Your task to perform on an android device: Open calendar and show me the second week of next month Image 0: 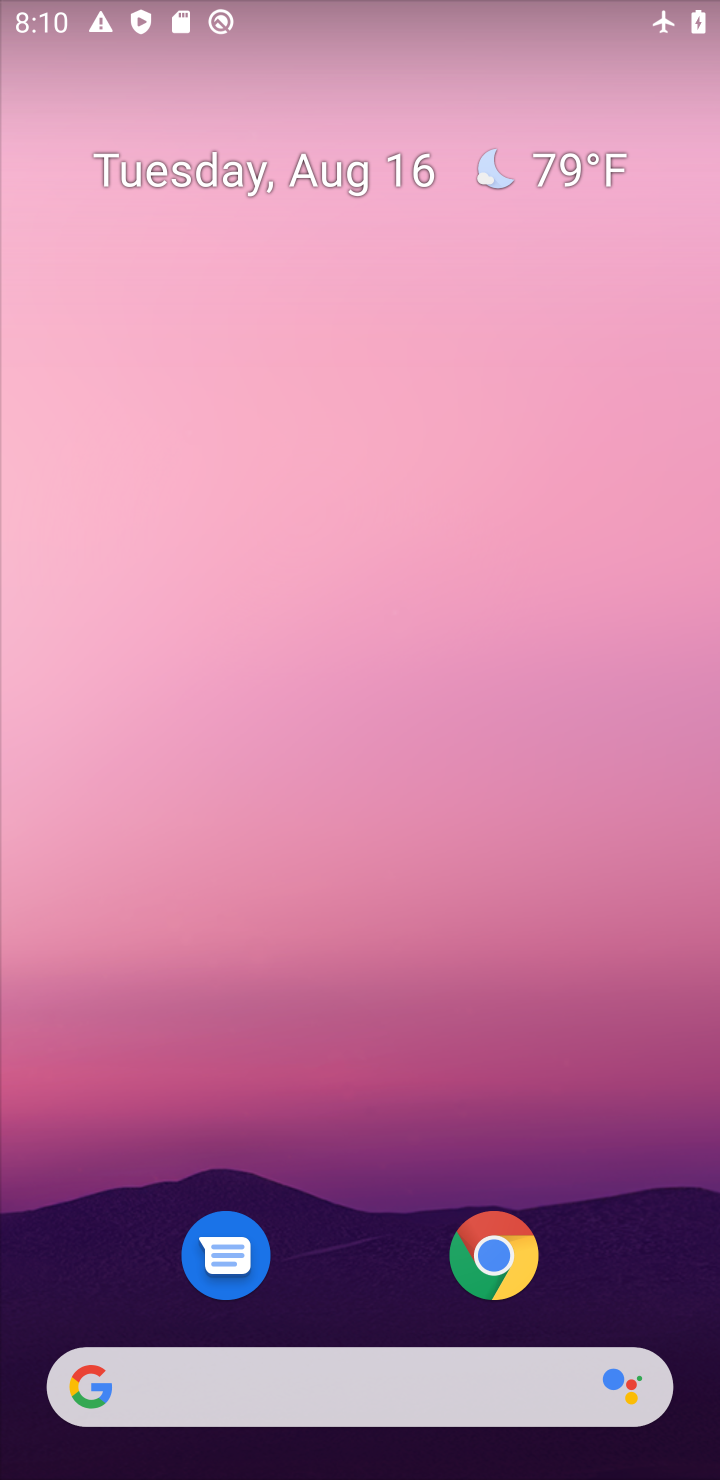
Step 0: drag from (353, 1355) to (285, 337)
Your task to perform on an android device: Open calendar and show me the second week of next month Image 1: 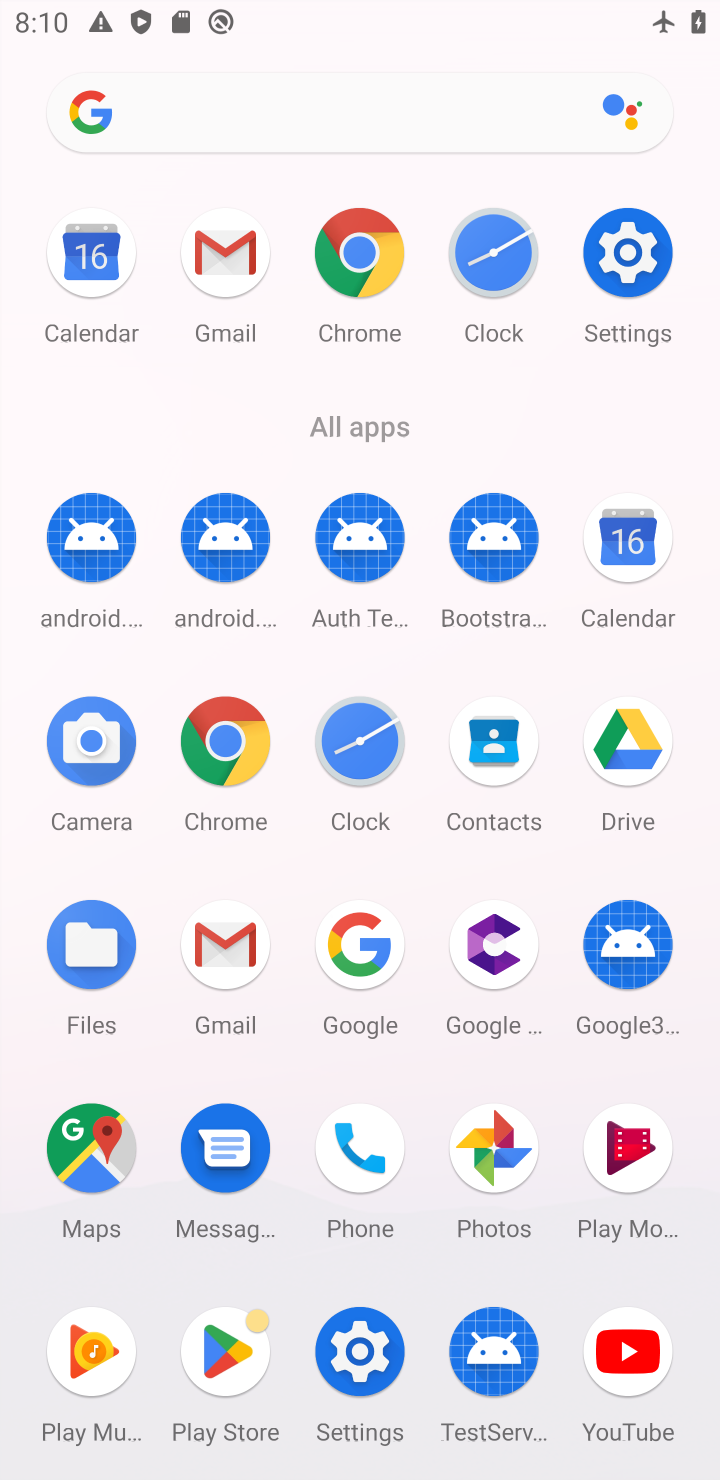
Step 1: click (639, 514)
Your task to perform on an android device: Open calendar and show me the second week of next month Image 2: 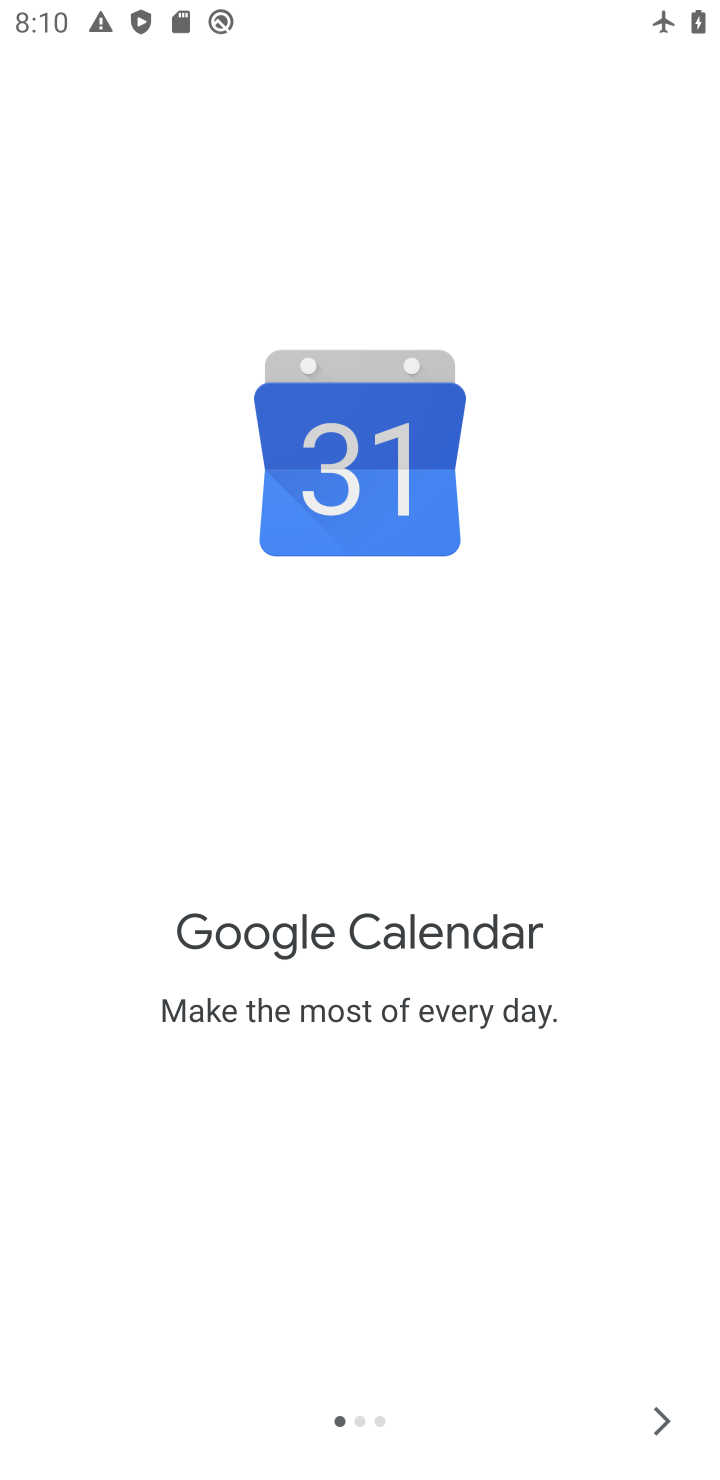
Step 2: click (662, 1423)
Your task to perform on an android device: Open calendar and show me the second week of next month Image 3: 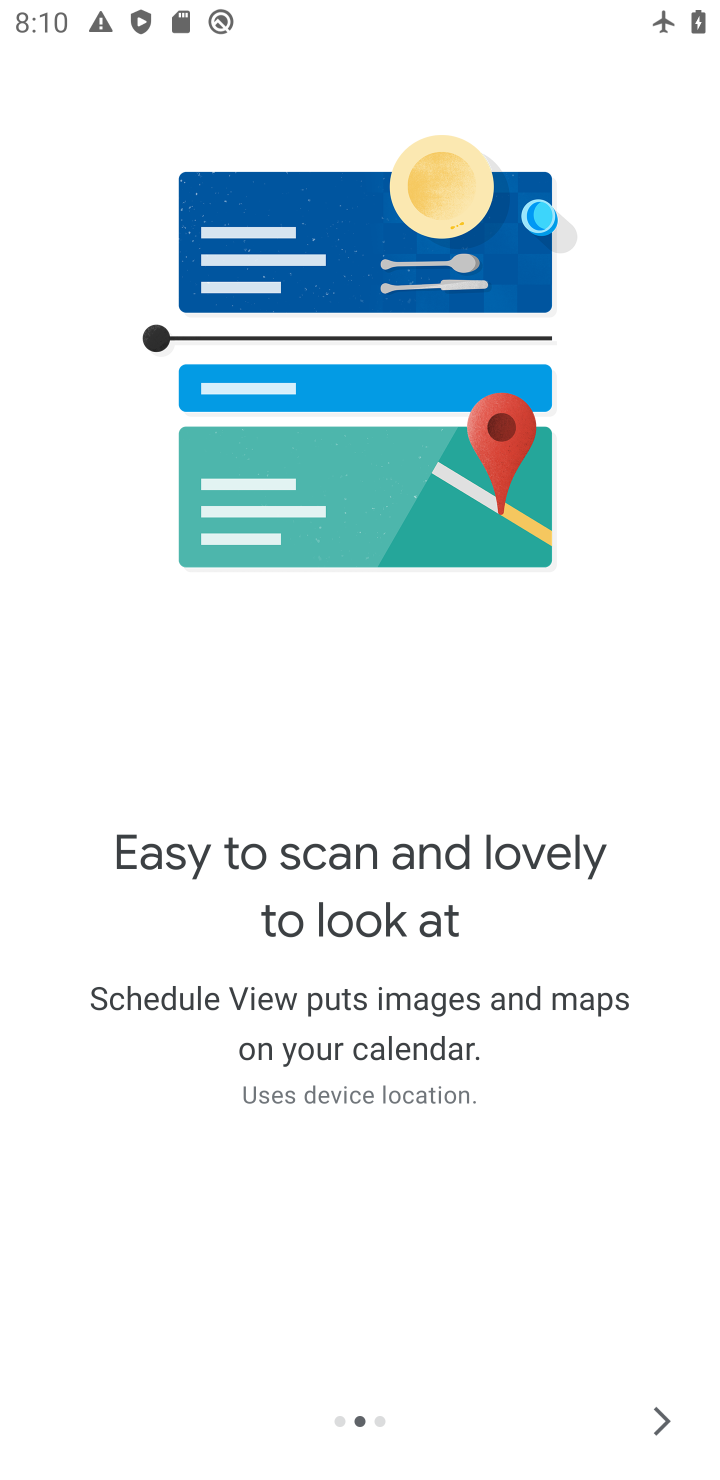
Step 3: click (662, 1423)
Your task to perform on an android device: Open calendar and show me the second week of next month Image 4: 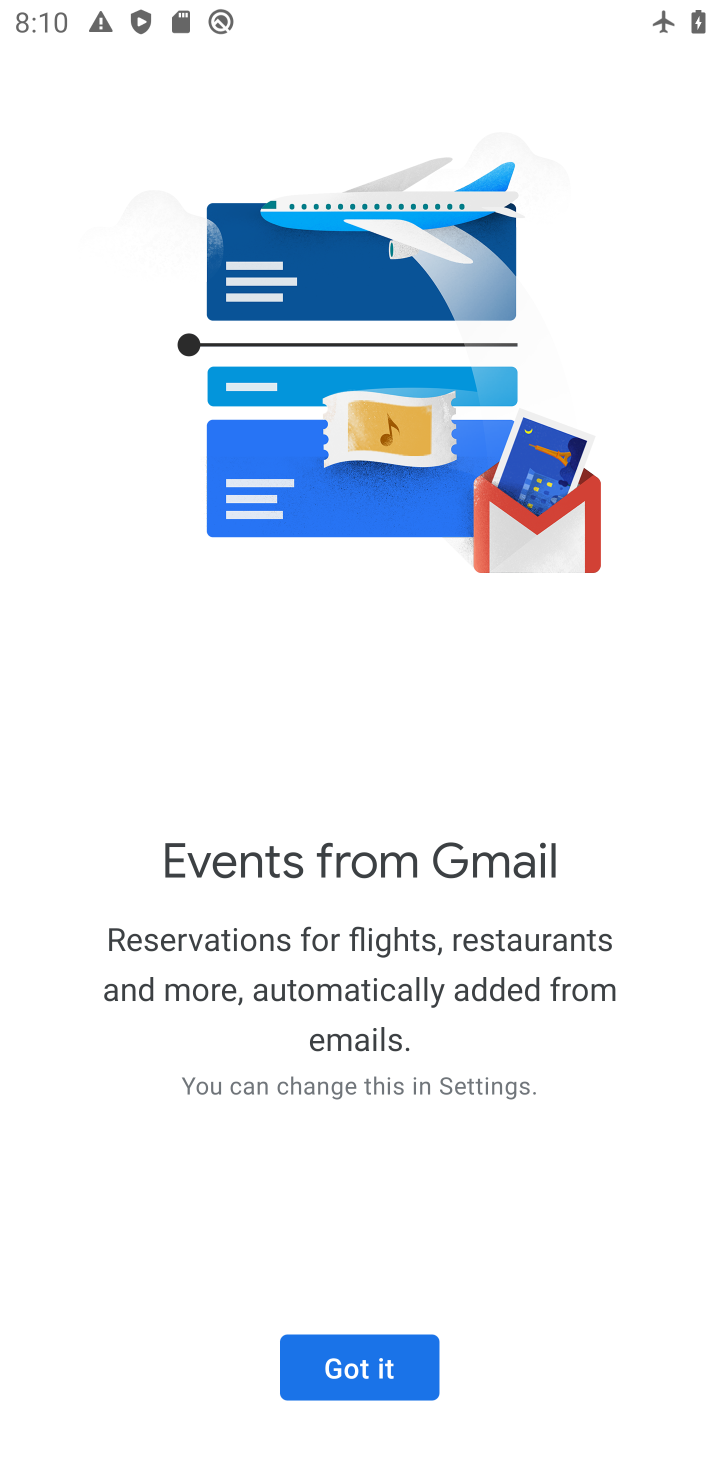
Step 4: click (370, 1379)
Your task to perform on an android device: Open calendar and show me the second week of next month Image 5: 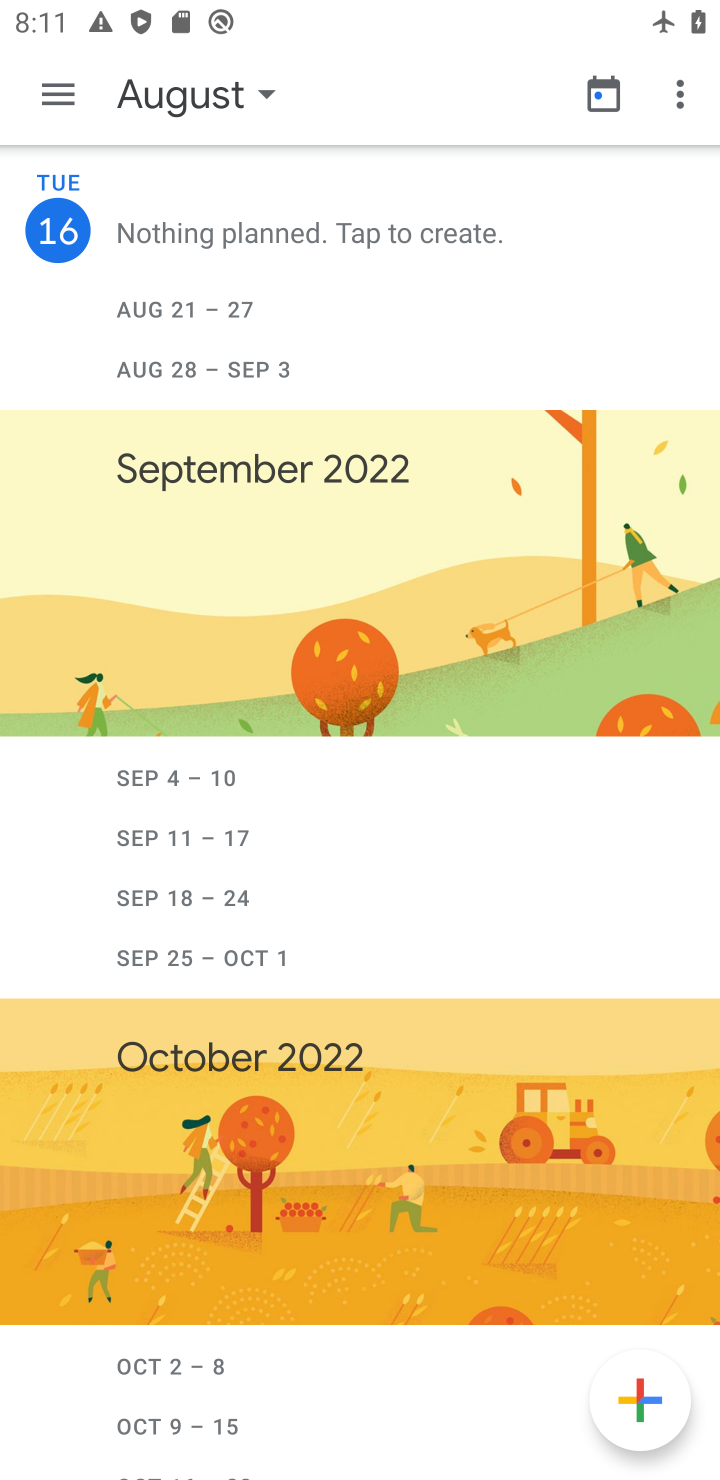
Step 5: click (56, 90)
Your task to perform on an android device: Open calendar and show me the second week of next month Image 6: 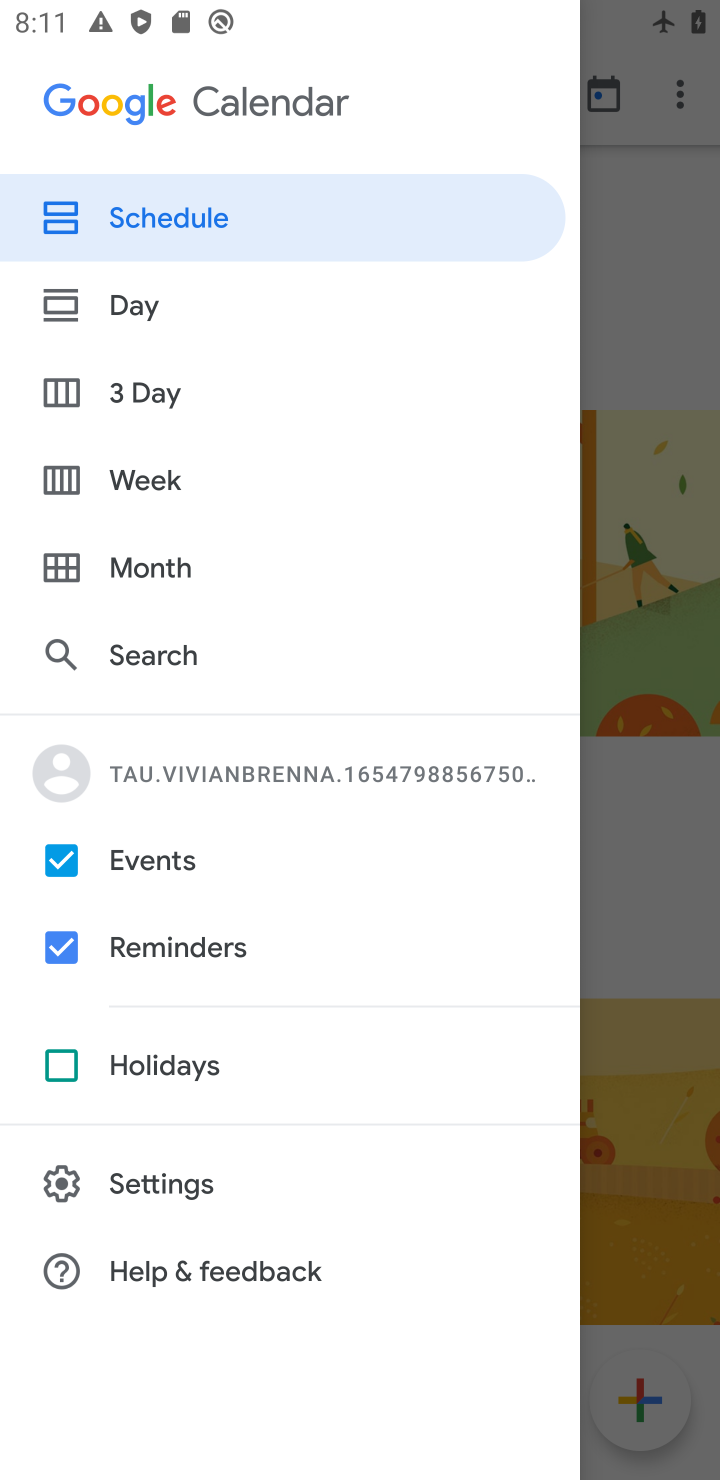
Step 6: click (162, 564)
Your task to perform on an android device: Open calendar and show me the second week of next month Image 7: 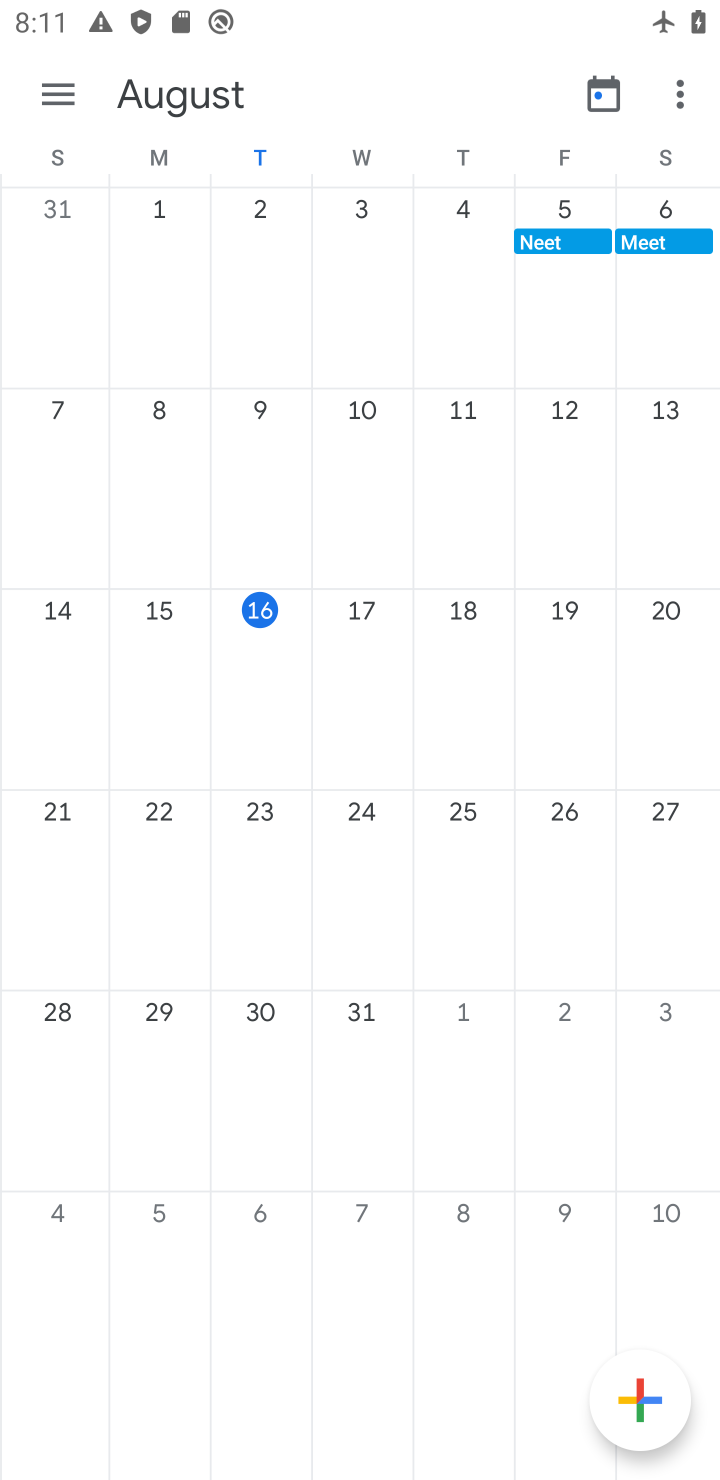
Step 7: task complete